Your task to perform on an android device: turn off notifications in google photos Image 0: 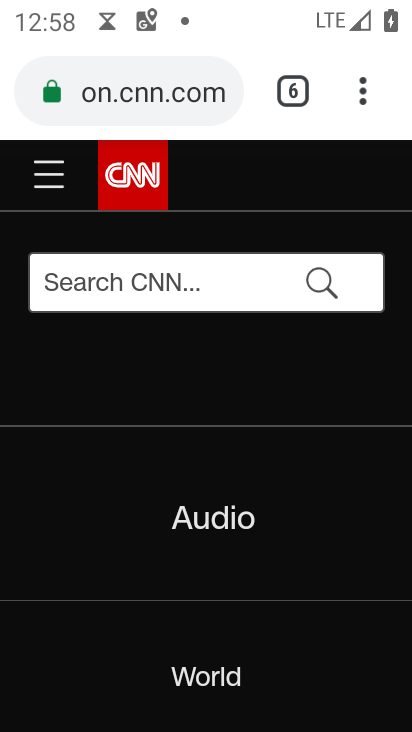
Step 0: press home button
Your task to perform on an android device: turn off notifications in google photos Image 1: 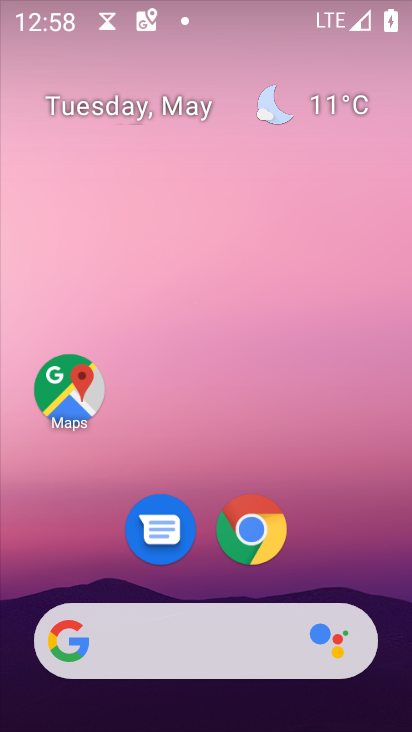
Step 1: drag from (190, 722) to (125, 163)
Your task to perform on an android device: turn off notifications in google photos Image 2: 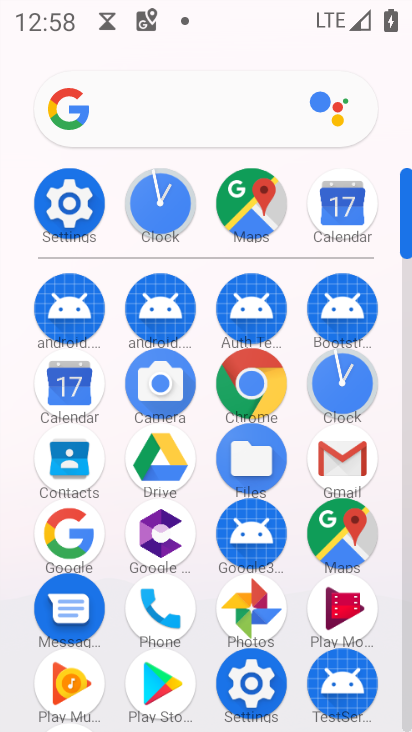
Step 2: click (261, 602)
Your task to perform on an android device: turn off notifications in google photos Image 3: 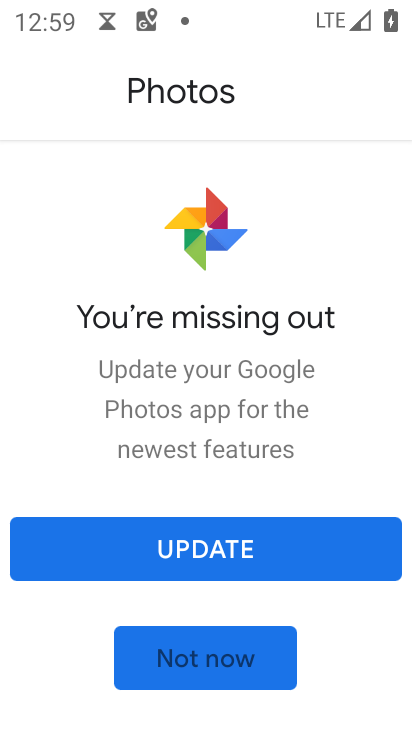
Step 3: task complete